Your task to perform on an android device: Play the last video I watched on Youtube Image 0: 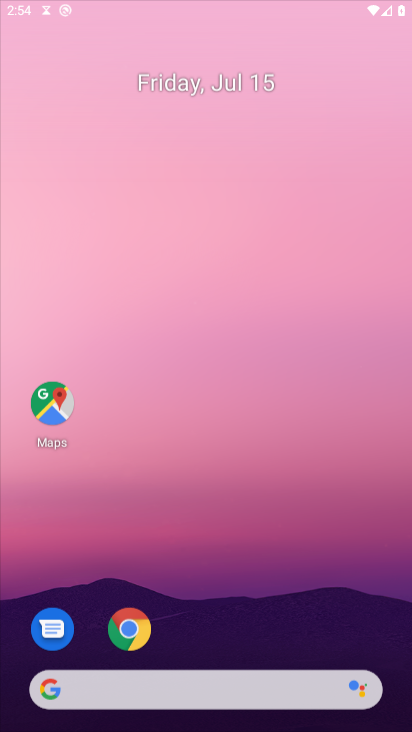
Step 0: press home button
Your task to perform on an android device: Play the last video I watched on Youtube Image 1: 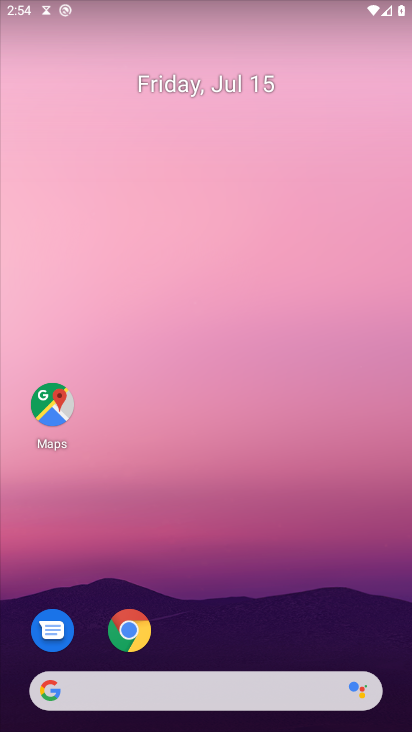
Step 1: drag from (232, 644) to (276, 57)
Your task to perform on an android device: Play the last video I watched on Youtube Image 2: 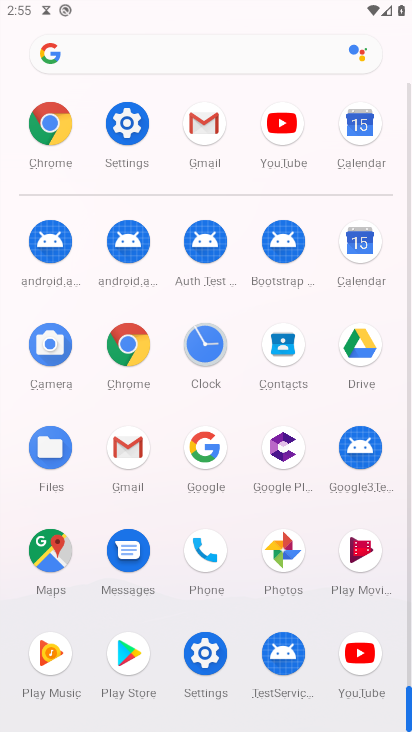
Step 2: click (365, 654)
Your task to perform on an android device: Play the last video I watched on Youtube Image 3: 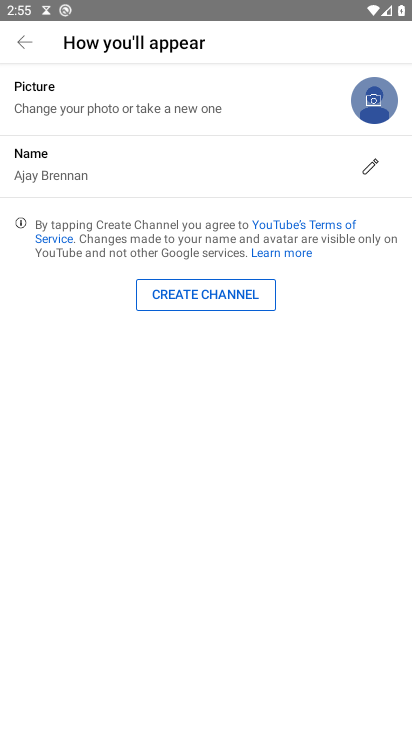
Step 3: click (19, 38)
Your task to perform on an android device: Play the last video I watched on Youtube Image 4: 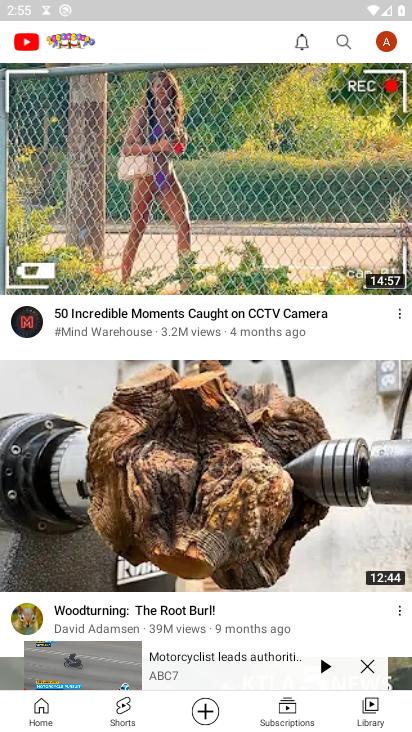
Step 4: click (364, 714)
Your task to perform on an android device: Play the last video I watched on Youtube Image 5: 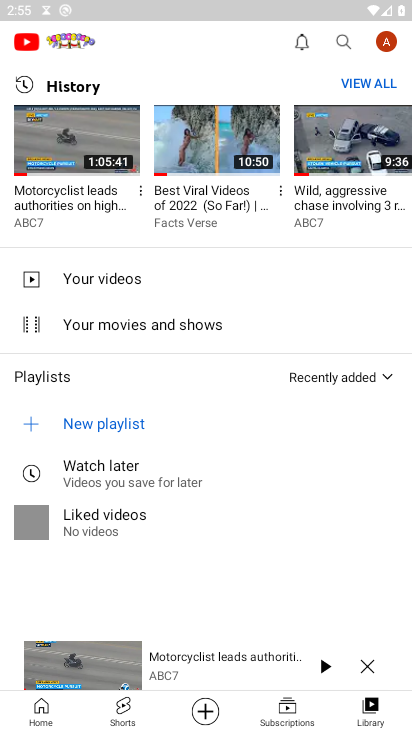
Step 5: click (86, 143)
Your task to perform on an android device: Play the last video I watched on Youtube Image 6: 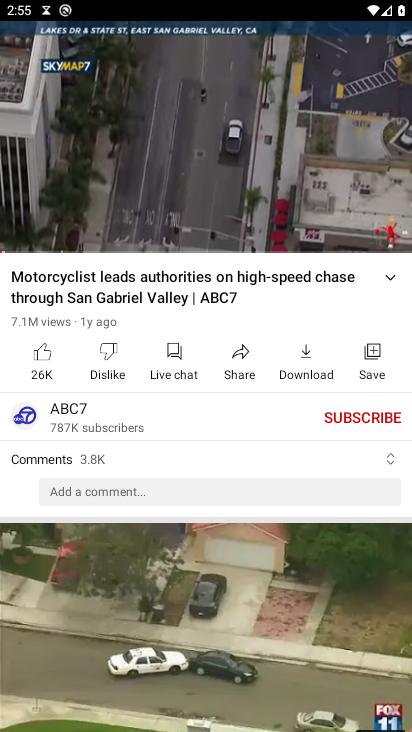
Step 6: click (196, 156)
Your task to perform on an android device: Play the last video I watched on Youtube Image 7: 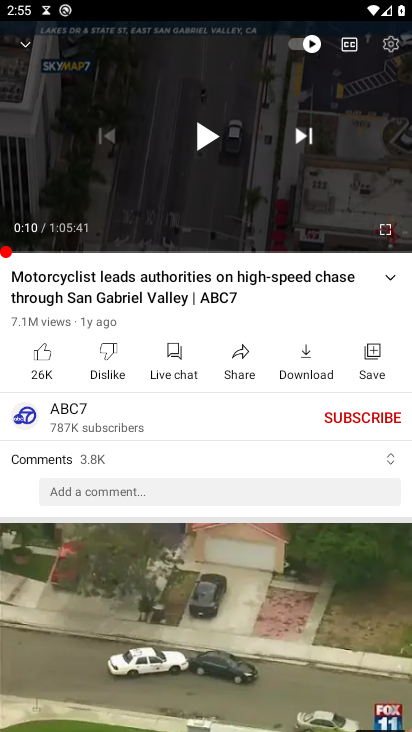
Step 7: click (206, 145)
Your task to perform on an android device: Play the last video I watched on Youtube Image 8: 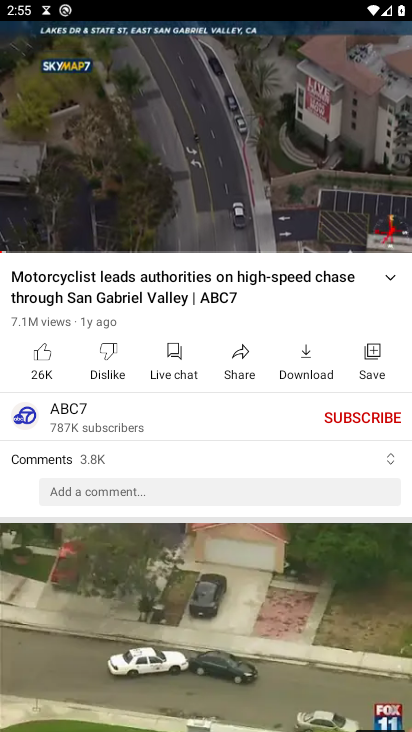
Step 8: task complete